Your task to perform on an android device: delete browsing data in the chrome app Image 0: 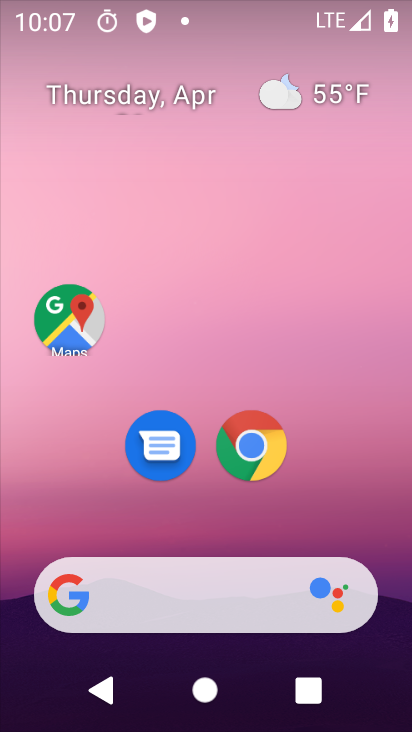
Step 0: click (242, 451)
Your task to perform on an android device: delete browsing data in the chrome app Image 1: 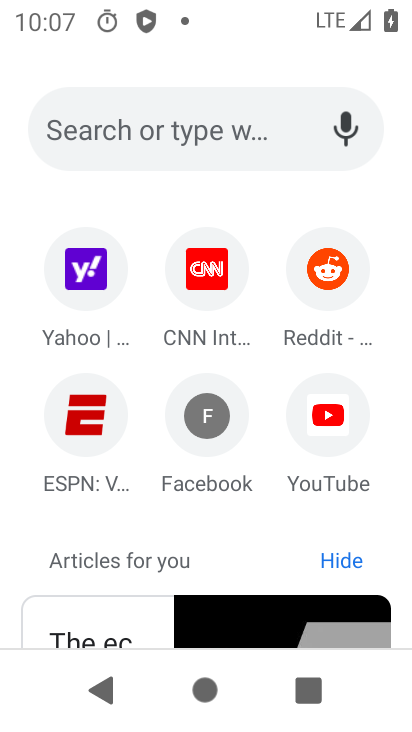
Step 1: drag from (244, 264) to (278, 533)
Your task to perform on an android device: delete browsing data in the chrome app Image 2: 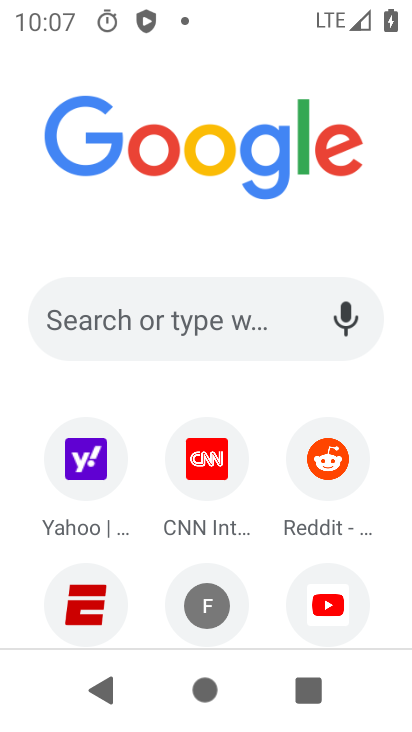
Step 2: drag from (323, 234) to (308, 578)
Your task to perform on an android device: delete browsing data in the chrome app Image 3: 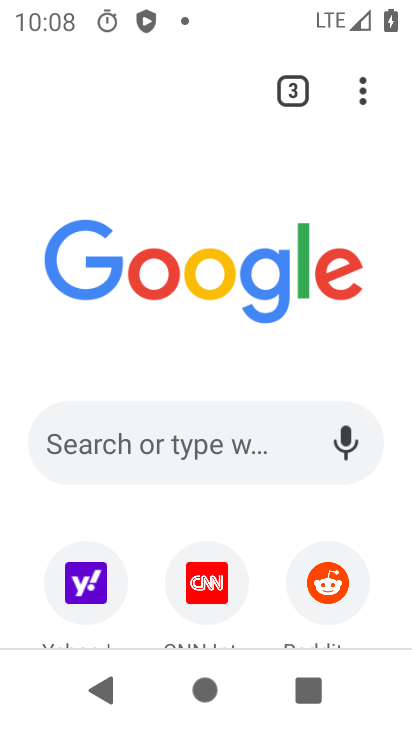
Step 3: click (364, 90)
Your task to perform on an android device: delete browsing data in the chrome app Image 4: 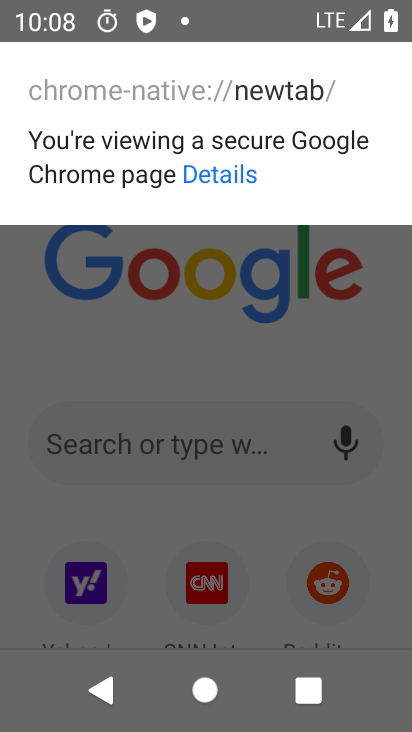
Step 4: click (402, 329)
Your task to perform on an android device: delete browsing data in the chrome app Image 5: 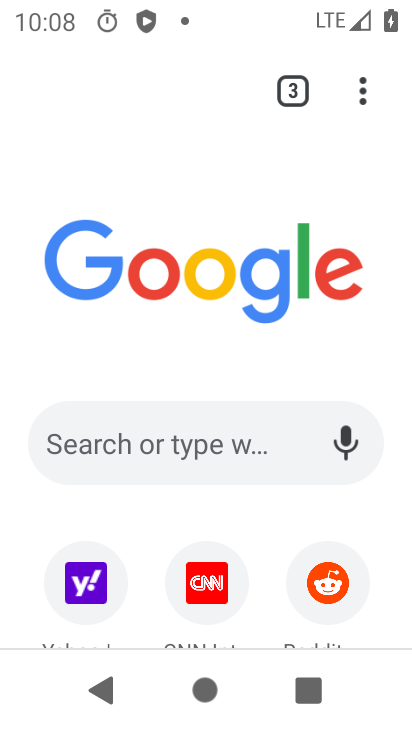
Step 5: click (359, 92)
Your task to perform on an android device: delete browsing data in the chrome app Image 6: 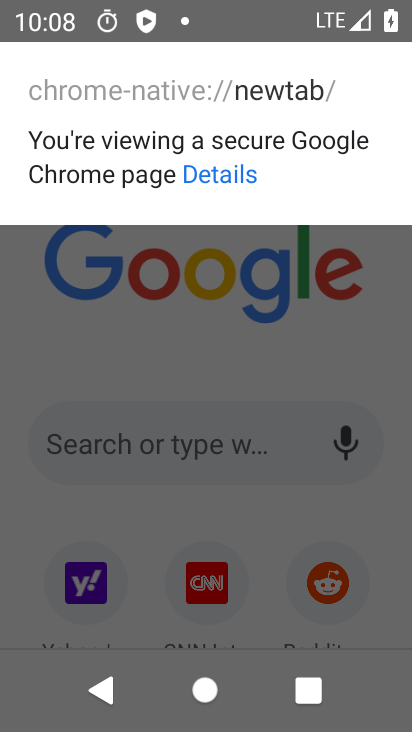
Step 6: click (370, 296)
Your task to perform on an android device: delete browsing data in the chrome app Image 7: 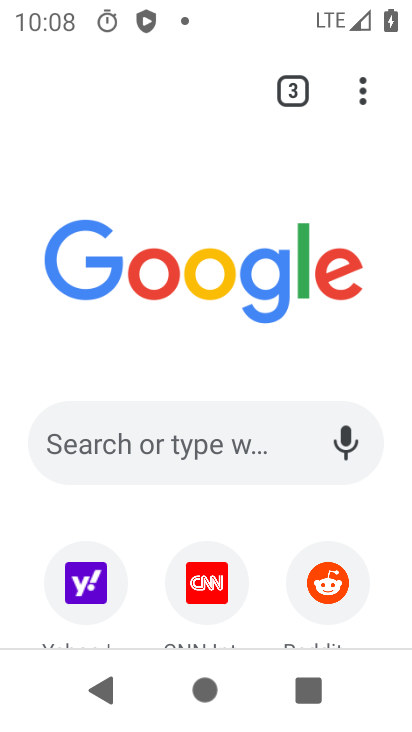
Step 7: click (359, 70)
Your task to perform on an android device: delete browsing data in the chrome app Image 8: 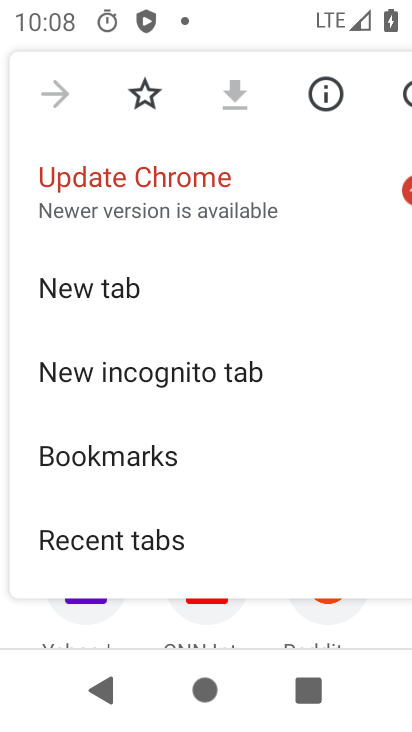
Step 8: drag from (269, 471) to (259, 59)
Your task to perform on an android device: delete browsing data in the chrome app Image 9: 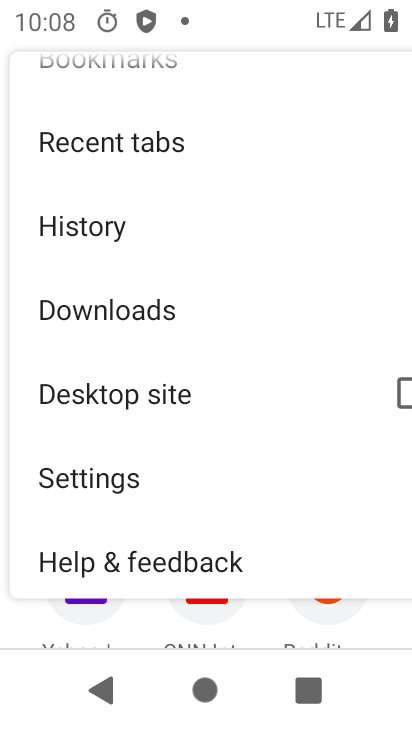
Step 9: drag from (256, 468) to (243, 135)
Your task to perform on an android device: delete browsing data in the chrome app Image 10: 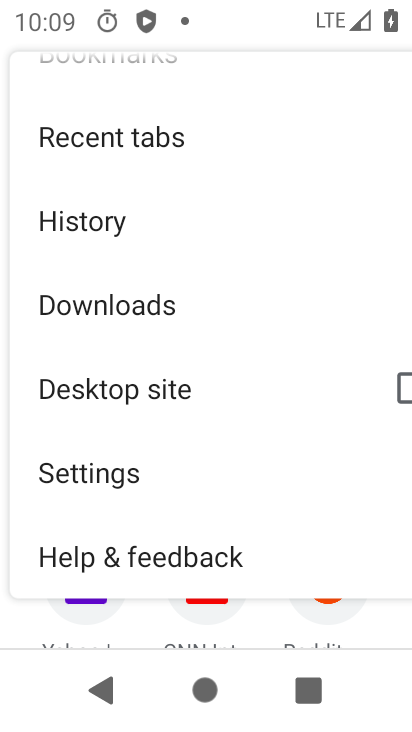
Step 10: click (120, 482)
Your task to perform on an android device: delete browsing data in the chrome app Image 11: 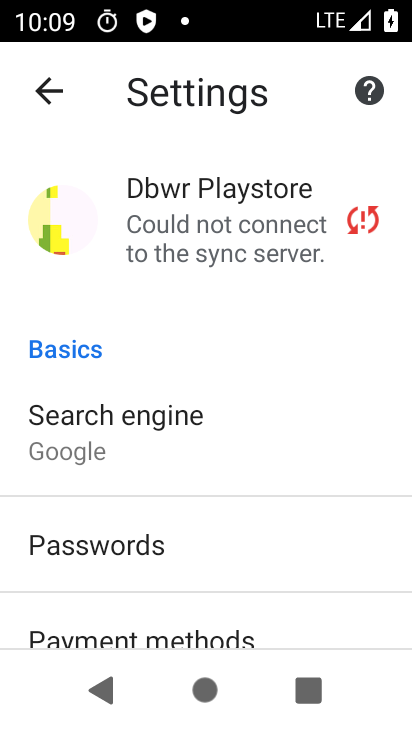
Step 11: drag from (203, 600) to (195, 185)
Your task to perform on an android device: delete browsing data in the chrome app Image 12: 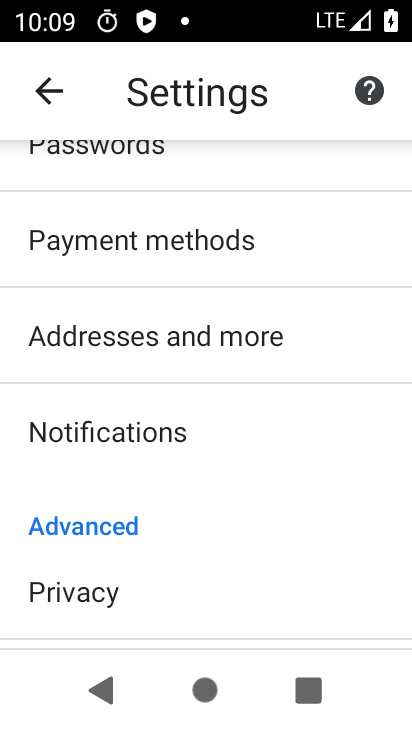
Step 12: drag from (205, 517) to (187, 227)
Your task to perform on an android device: delete browsing data in the chrome app Image 13: 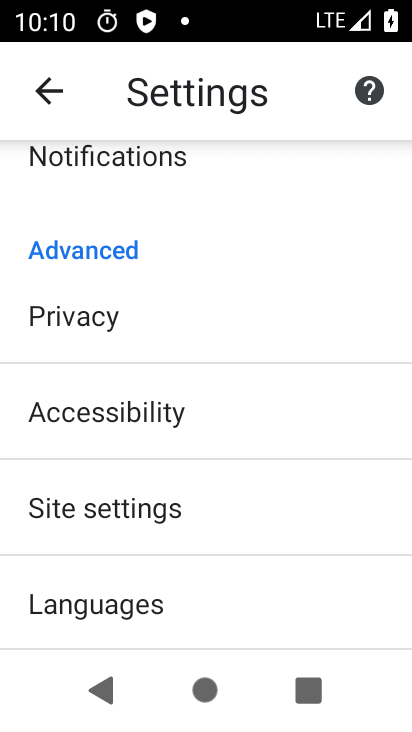
Step 13: drag from (208, 529) to (222, 356)
Your task to perform on an android device: delete browsing data in the chrome app Image 14: 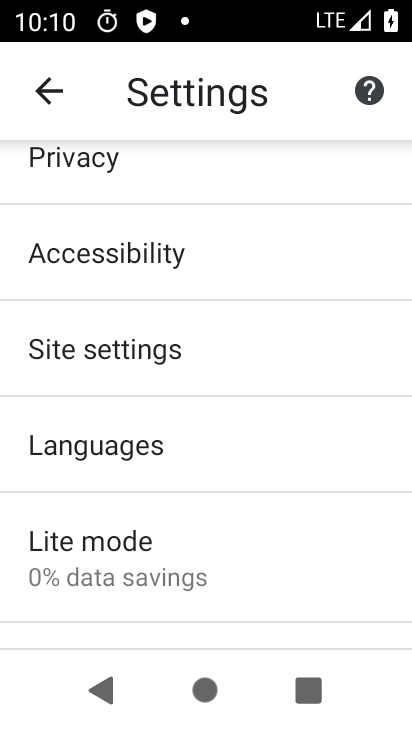
Step 14: drag from (212, 337) to (219, 521)
Your task to perform on an android device: delete browsing data in the chrome app Image 15: 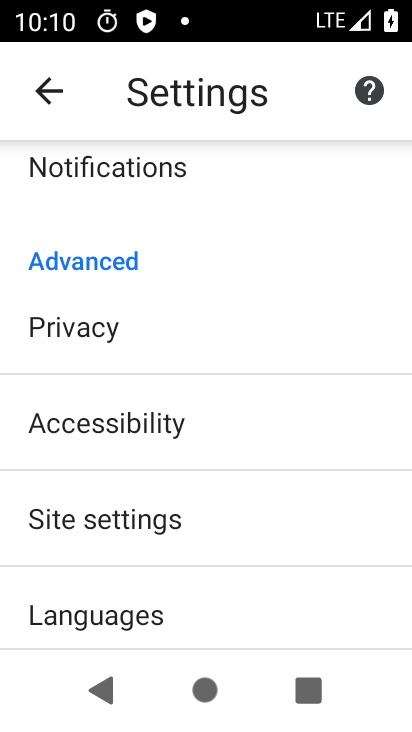
Step 15: click (91, 342)
Your task to perform on an android device: delete browsing data in the chrome app Image 16: 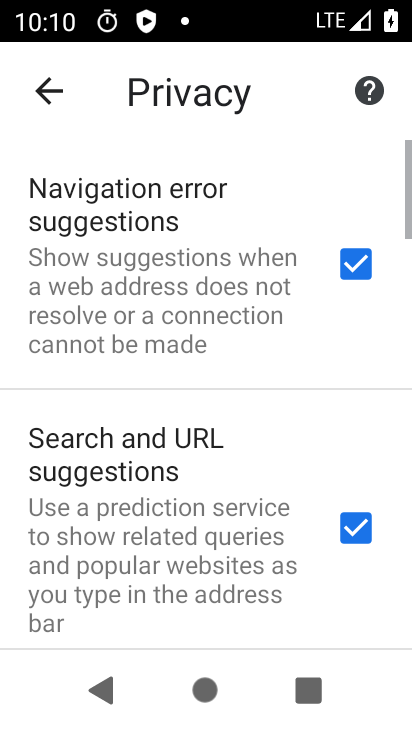
Step 16: drag from (200, 449) to (212, 36)
Your task to perform on an android device: delete browsing data in the chrome app Image 17: 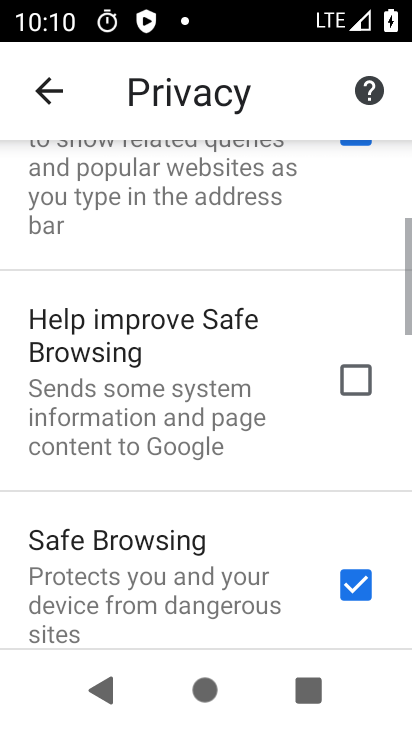
Step 17: drag from (162, 466) to (182, 7)
Your task to perform on an android device: delete browsing data in the chrome app Image 18: 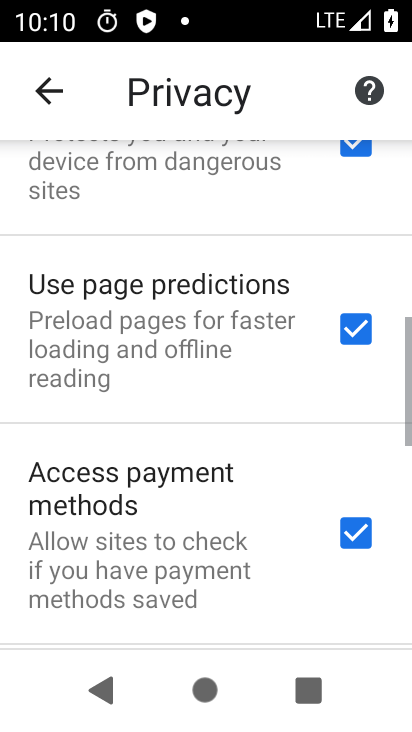
Step 18: drag from (159, 536) to (175, 10)
Your task to perform on an android device: delete browsing data in the chrome app Image 19: 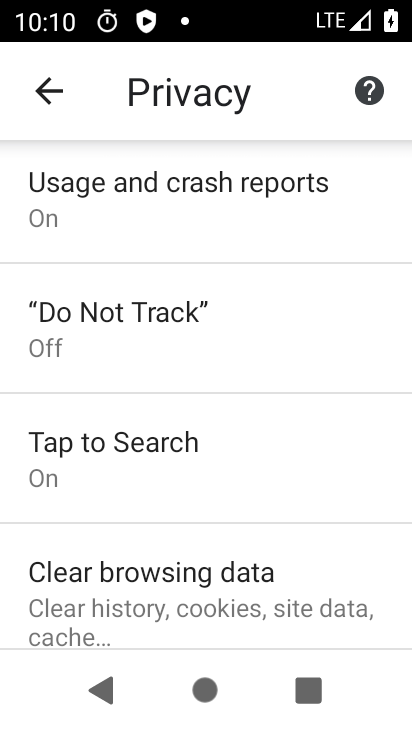
Step 19: drag from (153, 487) to (165, 62)
Your task to perform on an android device: delete browsing data in the chrome app Image 20: 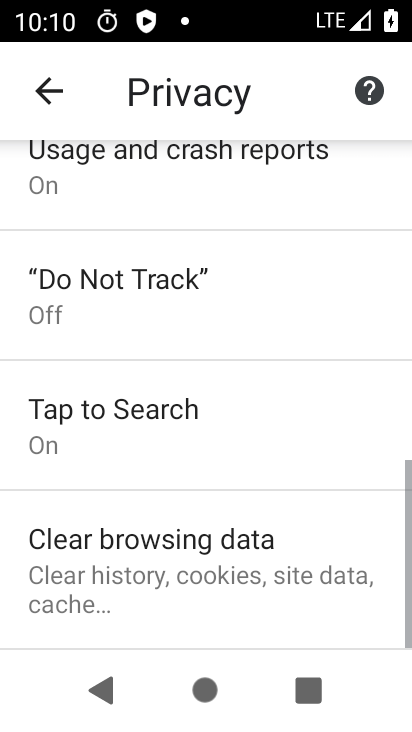
Step 20: click (141, 559)
Your task to perform on an android device: delete browsing data in the chrome app Image 21: 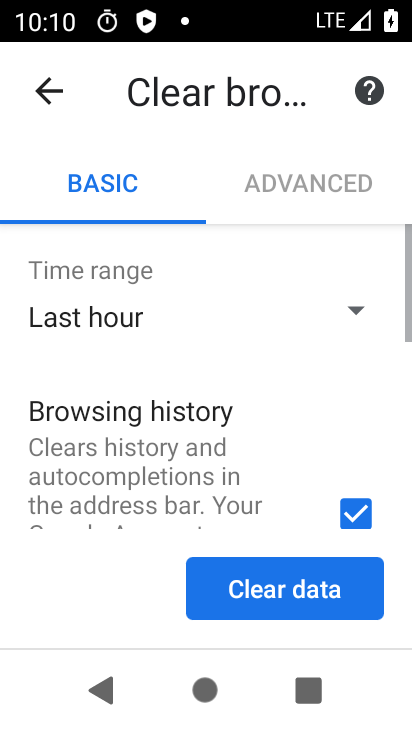
Step 21: drag from (217, 446) to (235, 150)
Your task to perform on an android device: delete browsing data in the chrome app Image 22: 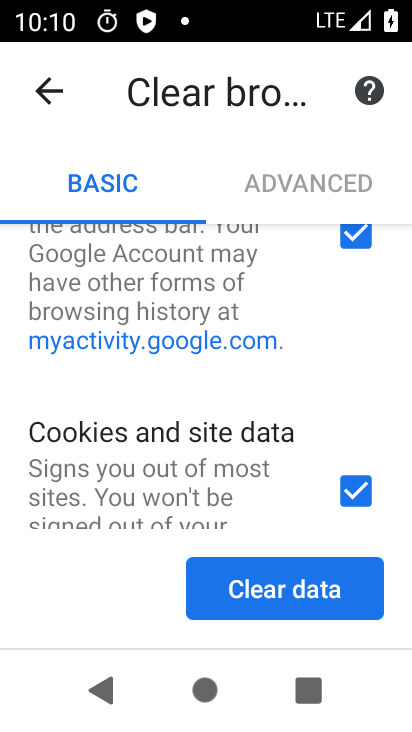
Step 22: click (352, 501)
Your task to perform on an android device: delete browsing data in the chrome app Image 23: 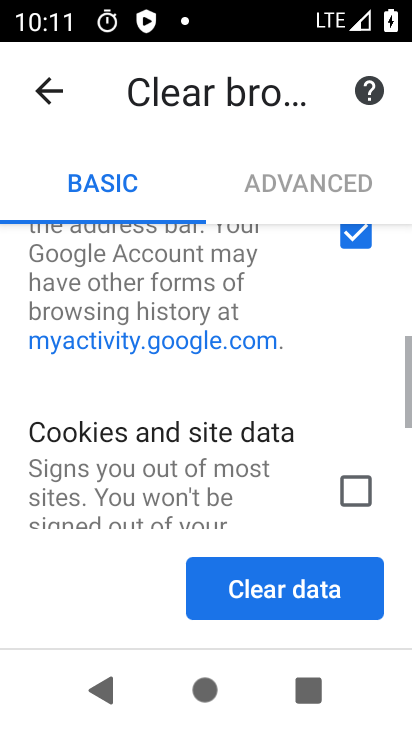
Step 23: drag from (151, 489) to (158, 103)
Your task to perform on an android device: delete browsing data in the chrome app Image 24: 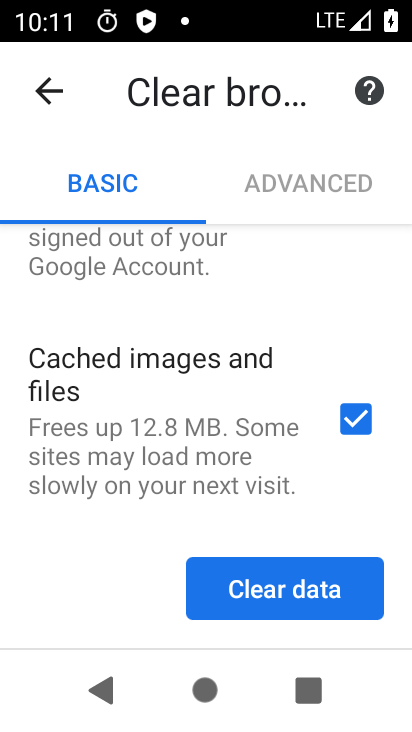
Step 24: click (352, 441)
Your task to perform on an android device: delete browsing data in the chrome app Image 25: 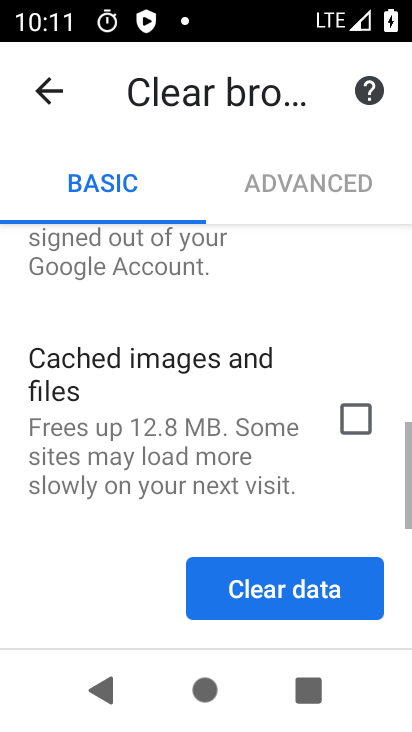
Step 25: click (272, 585)
Your task to perform on an android device: delete browsing data in the chrome app Image 26: 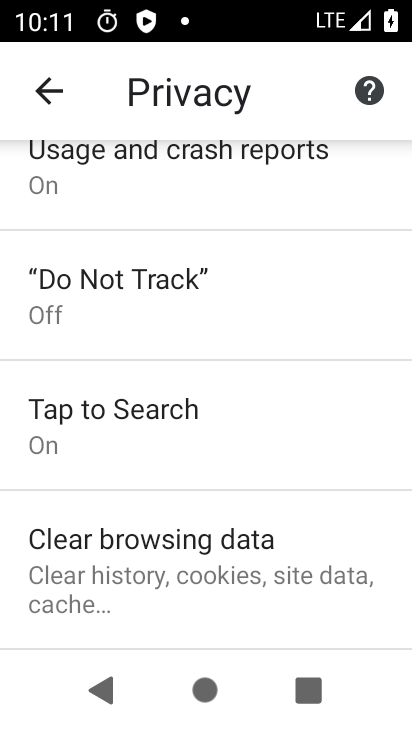
Step 26: task complete